Your task to perform on an android device: see creations saved in the google photos Image 0: 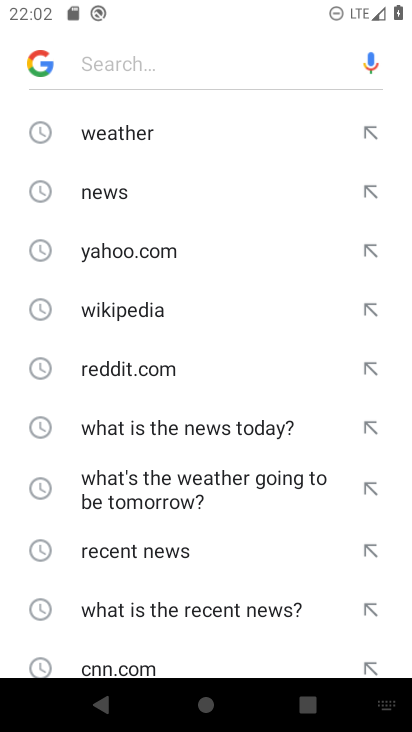
Step 0: press home button
Your task to perform on an android device: see creations saved in the google photos Image 1: 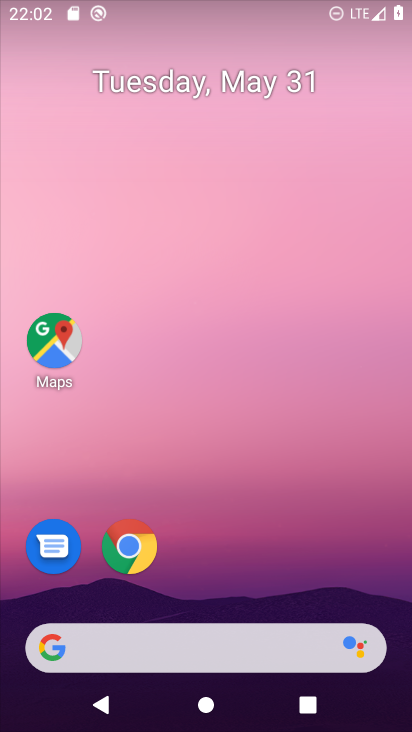
Step 1: press back button
Your task to perform on an android device: see creations saved in the google photos Image 2: 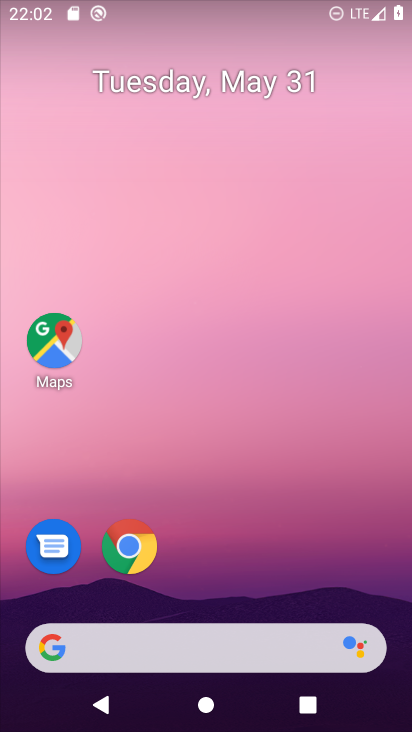
Step 2: drag from (392, 671) to (294, 150)
Your task to perform on an android device: see creations saved in the google photos Image 3: 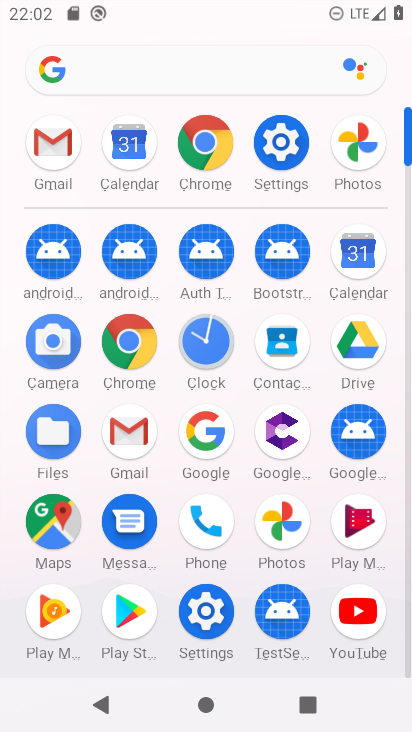
Step 3: click (275, 524)
Your task to perform on an android device: see creations saved in the google photos Image 4: 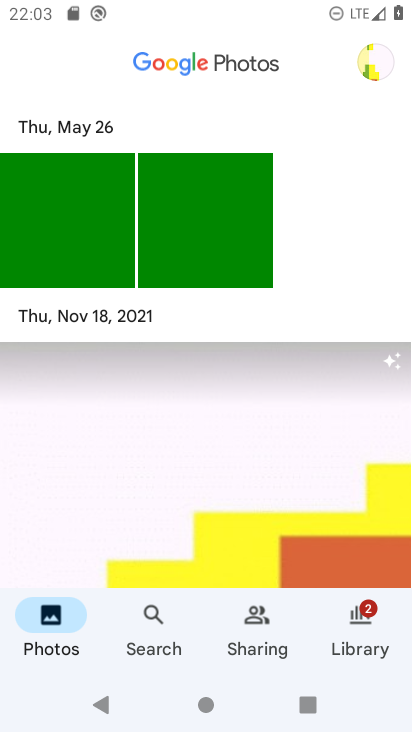
Step 4: task complete